Your task to perform on an android device: open app "Walmart Shopping & Grocery" Image 0: 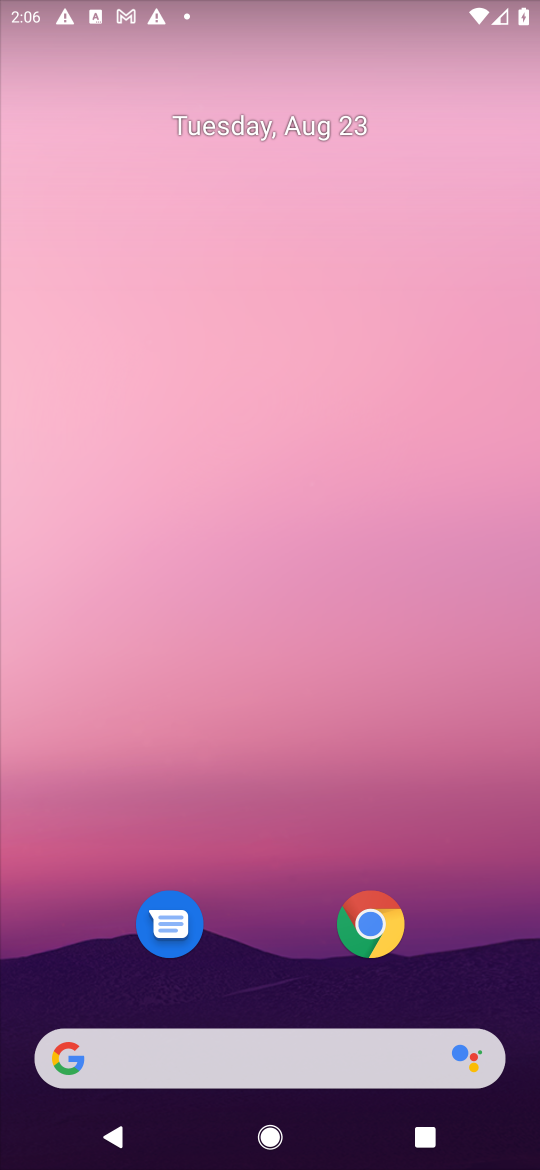
Step 0: press home button
Your task to perform on an android device: open app "Walmart Shopping & Grocery" Image 1: 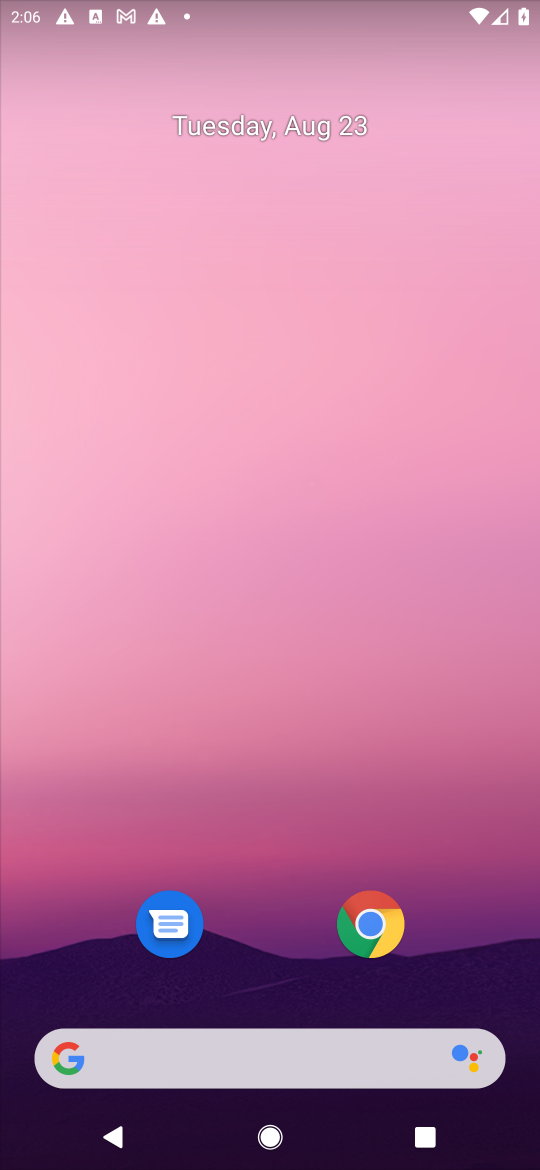
Step 1: drag from (458, 978) to (470, 125)
Your task to perform on an android device: open app "Walmart Shopping & Grocery" Image 2: 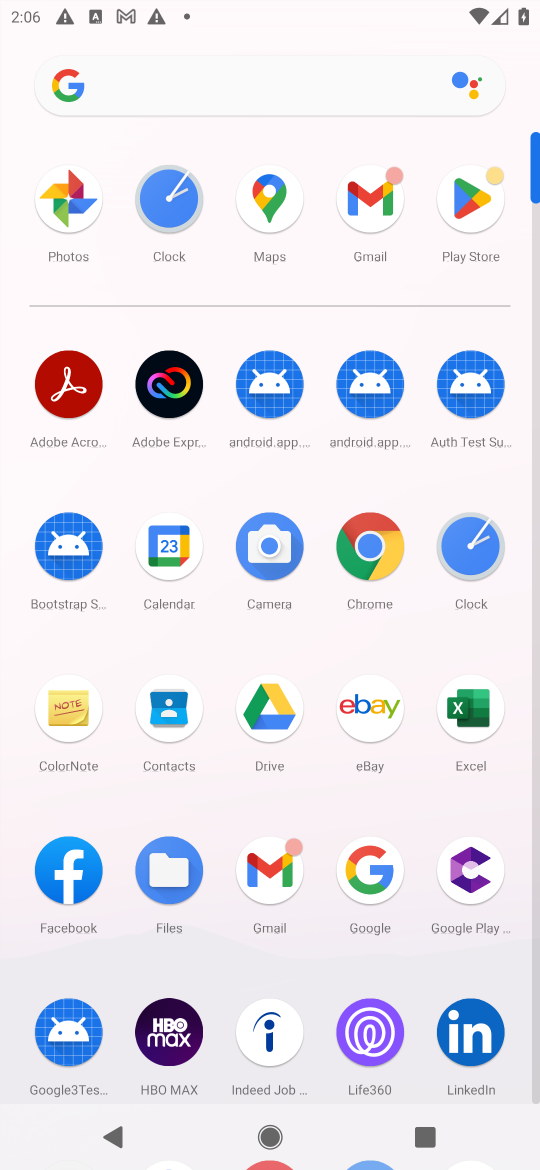
Step 2: click (468, 208)
Your task to perform on an android device: open app "Walmart Shopping & Grocery" Image 3: 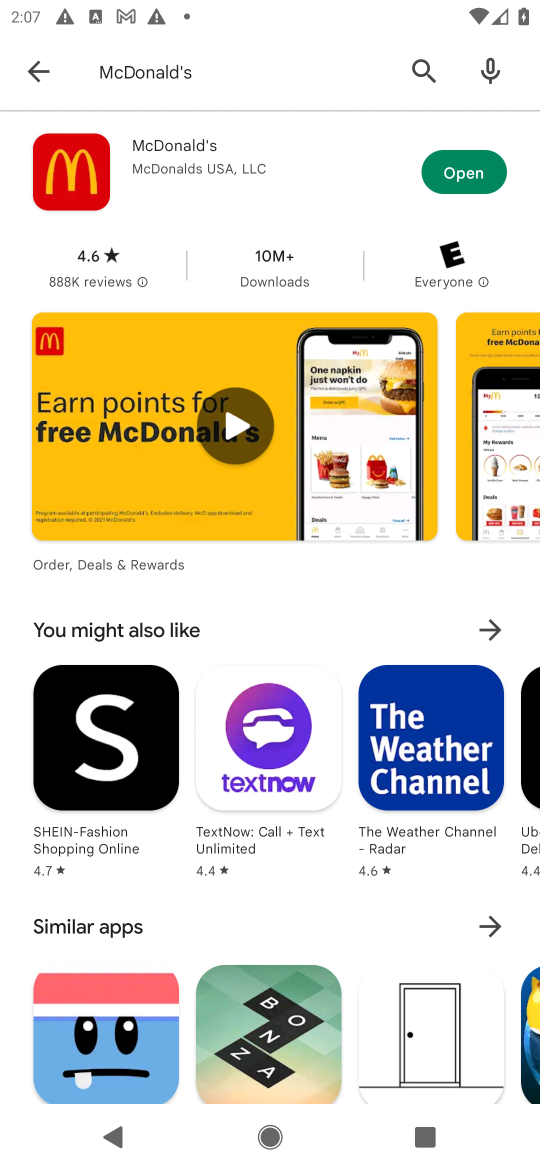
Step 3: press back button
Your task to perform on an android device: open app "Walmart Shopping & Grocery" Image 4: 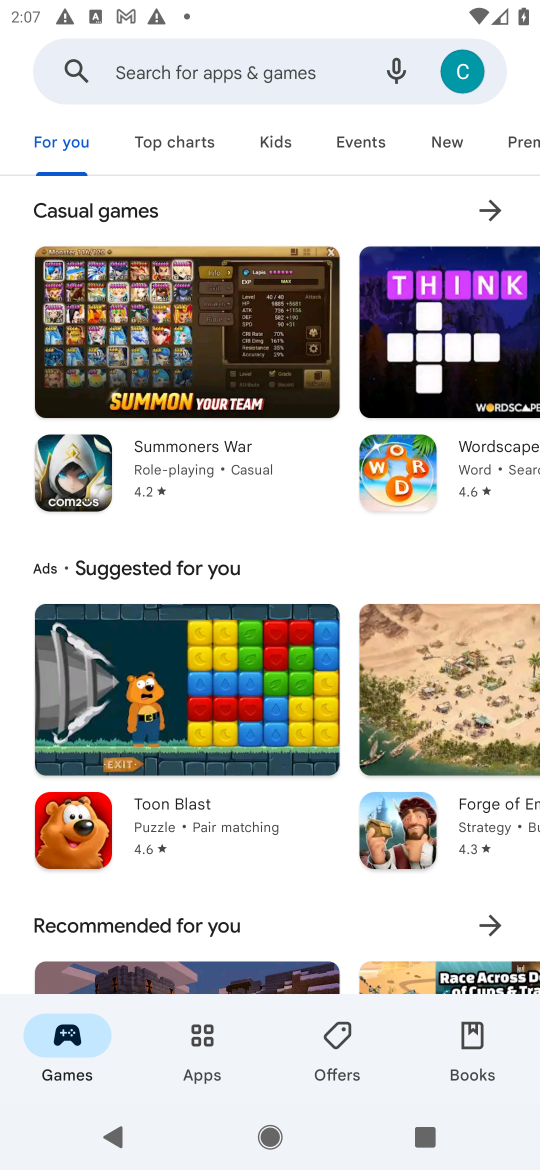
Step 4: click (269, 74)
Your task to perform on an android device: open app "Walmart Shopping & Grocery" Image 5: 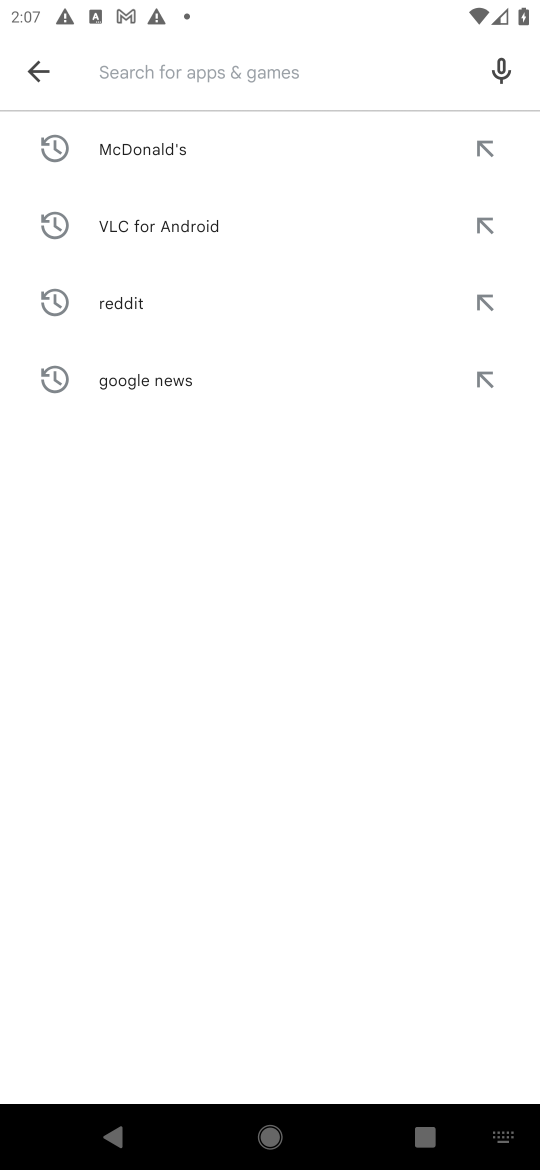
Step 5: press enter
Your task to perform on an android device: open app "Walmart Shopping & Grocery" Image 6: 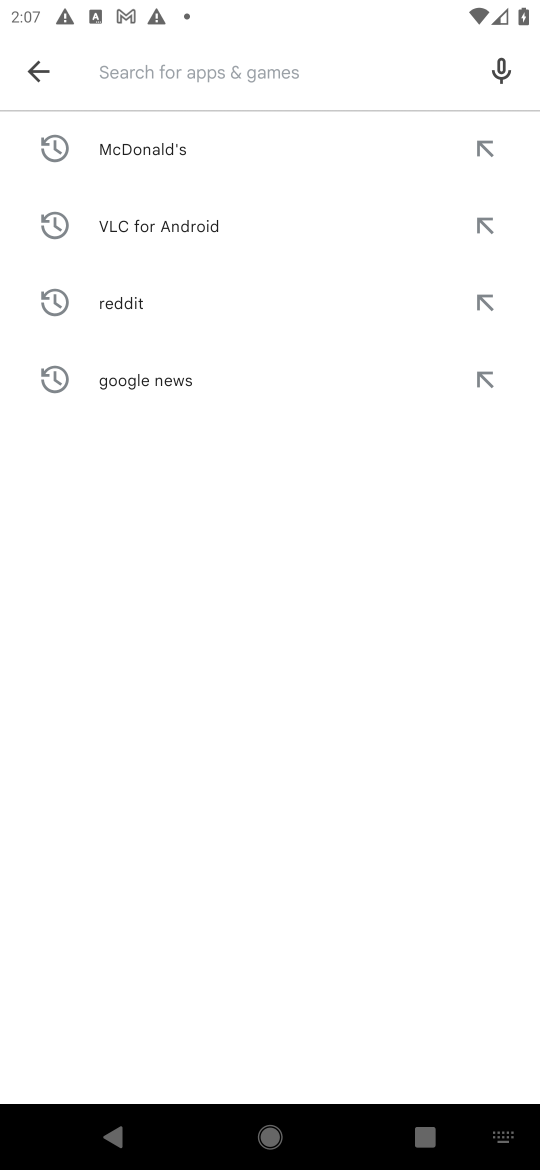
Step 6: type "Walmart Shopping & Grocery"
Your task to perform on an android device: open app "Walmart Shopping & Grocery" Image 7: 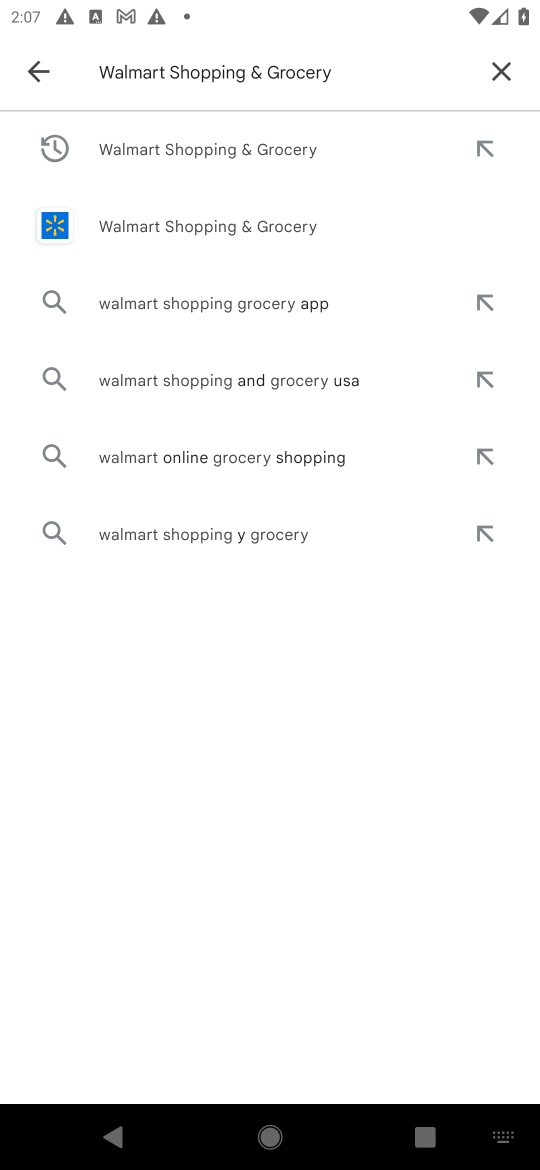
Step 7: click (258, 228)
Your task to perform on an android device: open app "Walmart Shopping & Grocery" Image 8: 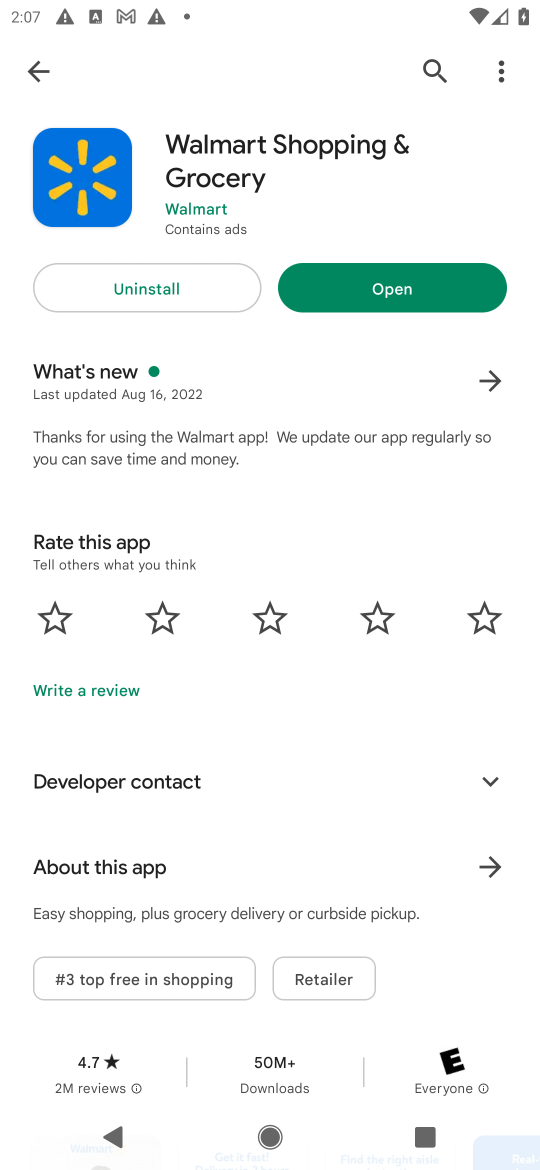
Step 8: click (402, 297)
Your task to perform on an android device: open app "Walmart Shopping & Grocery" Image 9: 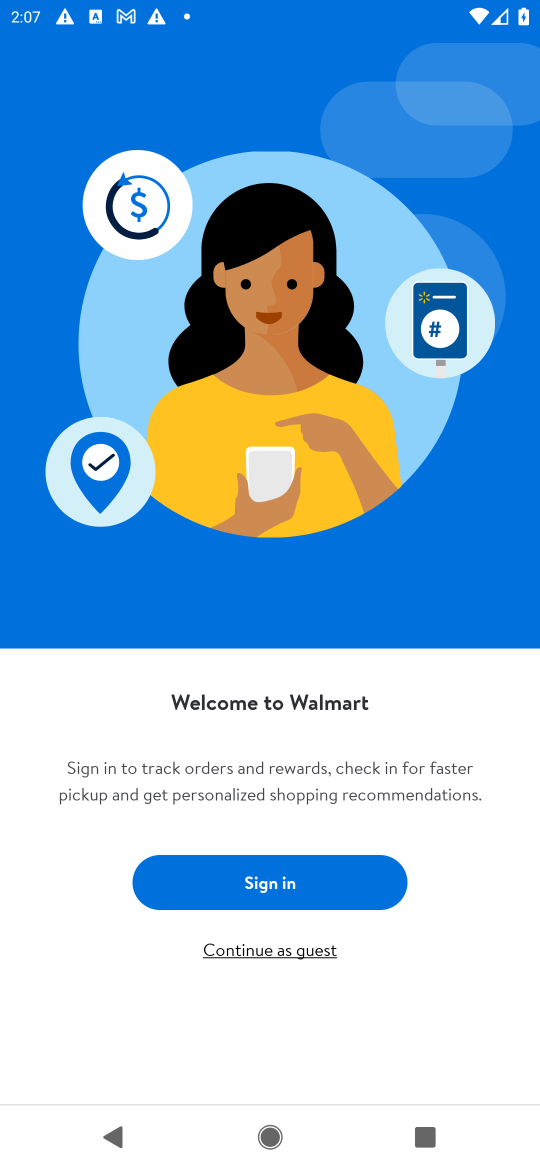
Step 9: task complete